Your task to perform on an android device: What's on my calendar tomorrow? Image 0: 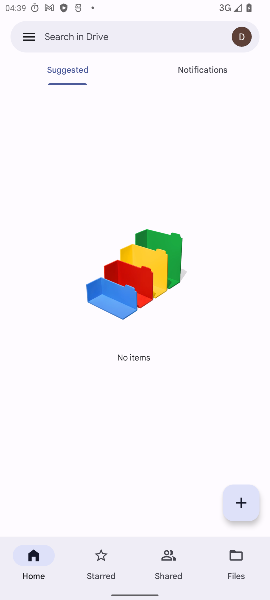
Step 0: press home button
Your task to perform on an android device: What's on my calendar tomorrow? Image 1: 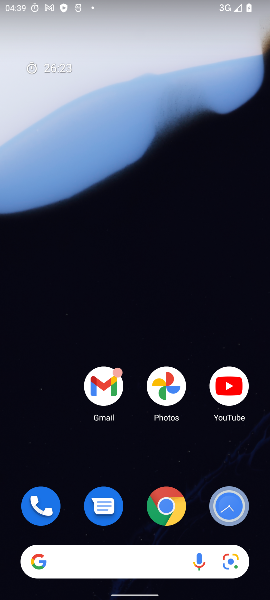
Step 1: drag from (134, 484) to (200, 52)
Your task to perform on an android device: What's on my calendar tomorrow? Image 2: 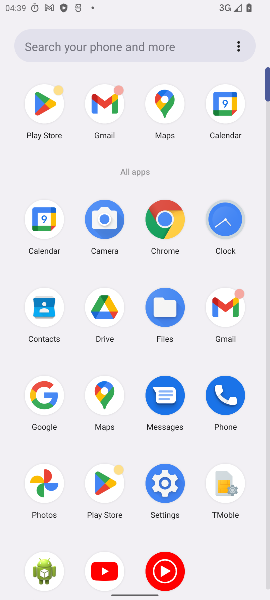
Step 2: click (47, 221)
Your task to perform on an android device: What's on my calendar tomorrow? Image 3: 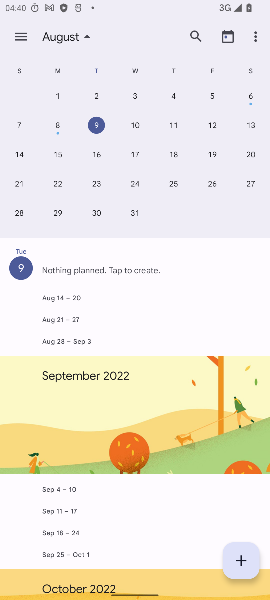
Step 3: click (142, 130)
Your task to perform on an android device: What's on my calendar tomorrow? Image 4: 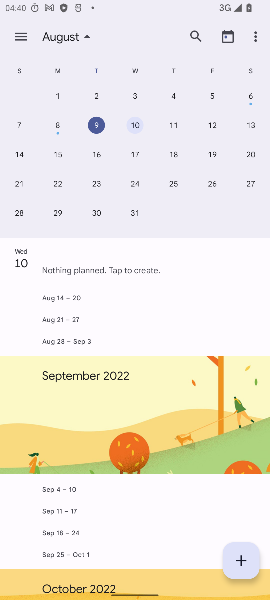
Step 4: task complete